Your task to perform on an android device: Open battery settings Image 0: 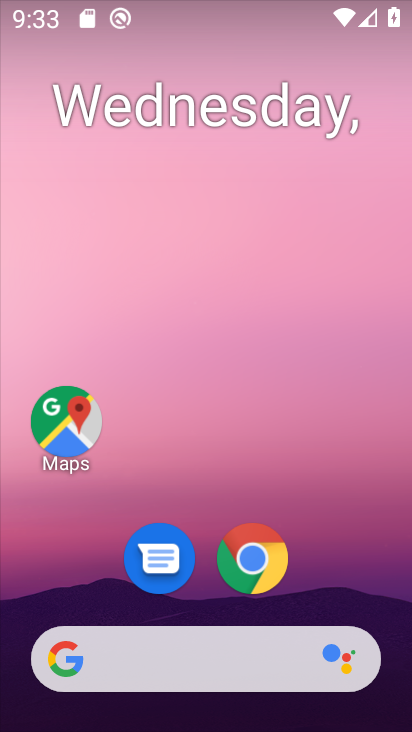
Step 0: drag from (363, 590) to (376, 111)
Your task to perform on an android device: Open battery settings Image 1: 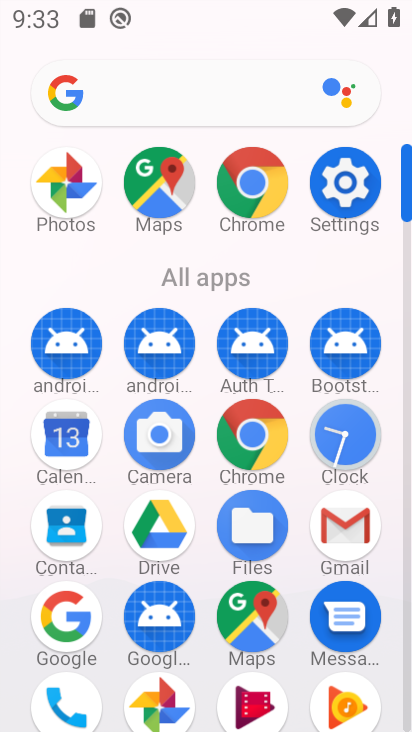
Step 1: click (353, 194)
Your task to perform on an android device: Open battery settings Image 2: 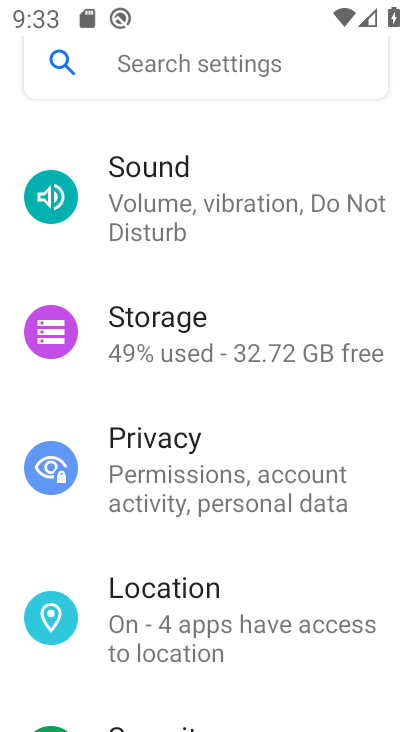
Step 2: drag from (371, 423) to (386, 311)
Your task to perform on an android device: Open battery settings Image 3: 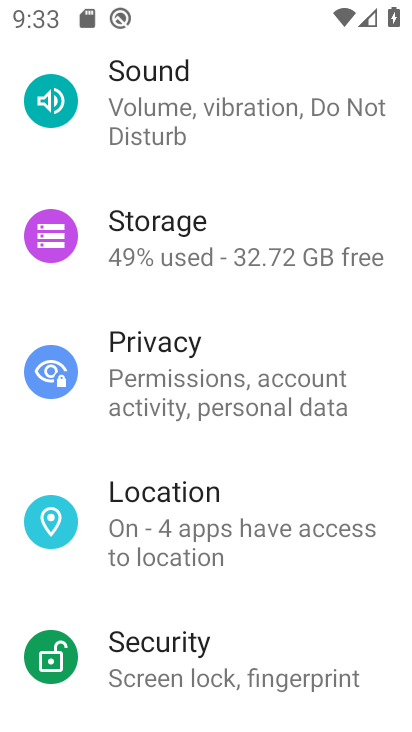
Step 3: drag from (365, 453) to (377, 364)
Your task to perform on an android device: Open battery settings Image 4: 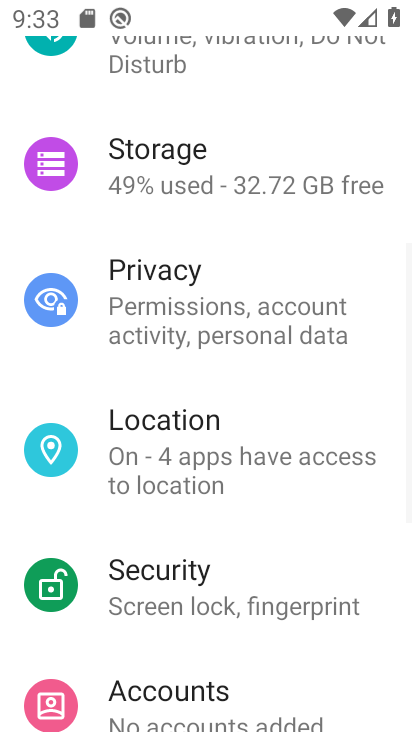
Step 4: drag from (347, 505) to (357, 391)
Your task to perform on an android device: Open battery settings Image 5: 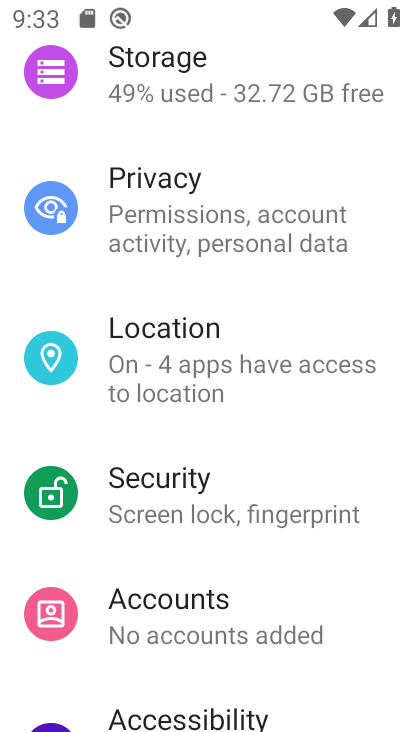
Step 5: drag from (352, 541) to (370, 430)
Your task to perform on an android device: Open battery settings Image 6: 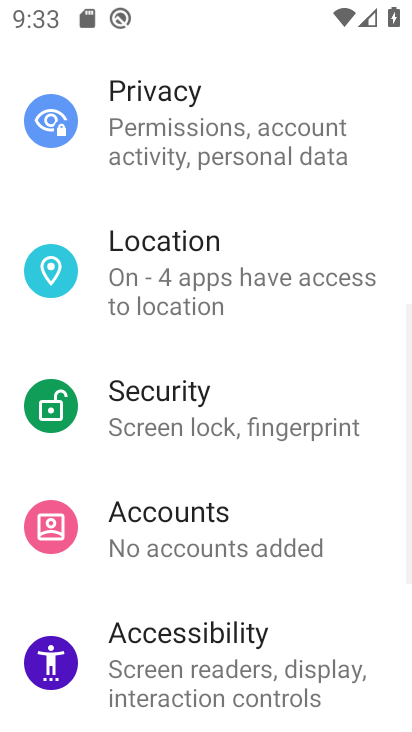
Step 6: drag from (360, 518) to (361, 415)
Your task to perform on an android device: Open battery settings Image 7: 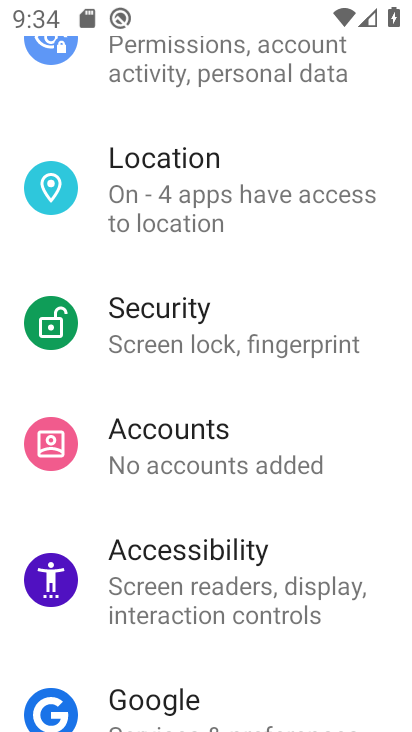
Step 7: drag from (361, 497) to (362, 409)
Your task to perform on an android device: Open battery settings Image 8: 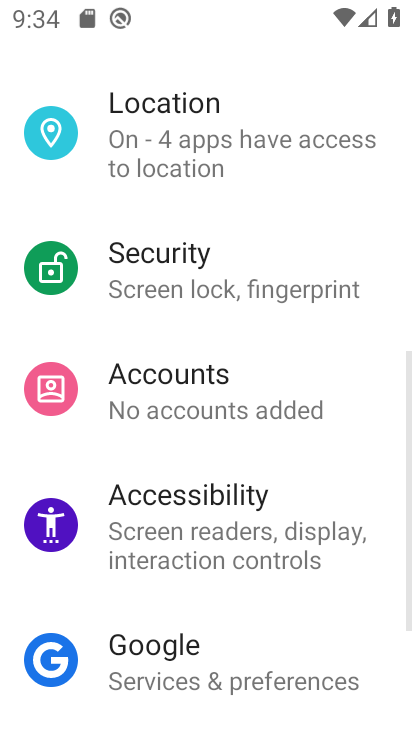
Step 8: drag from (354, 495) to (361, 409)
Your task to perform on an android device: Open battery settings Image 9: 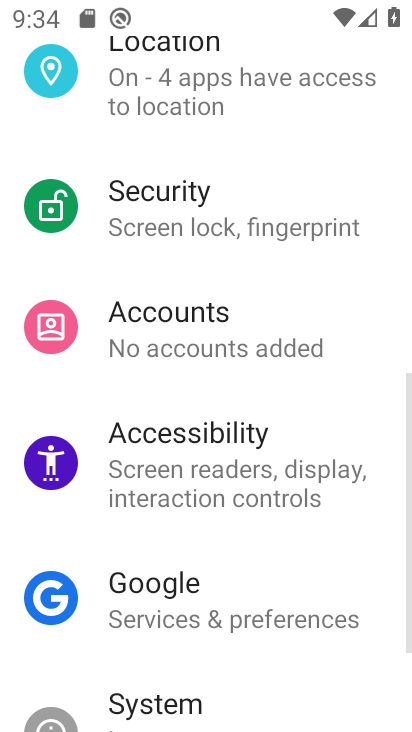
Step 9: drag from (357, 535) to (368, 273)
Your task to perform on an android device: Open battery settings Image 10: 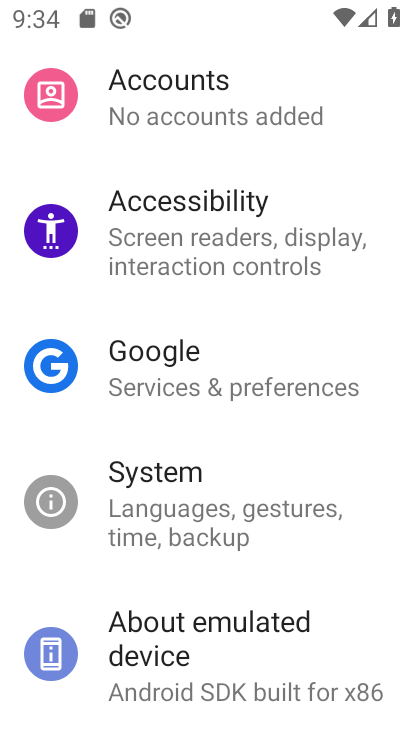
Step 10: drag from (351, 300) to (349, 390)
Your task to perform on an android device: Open battery settings Image 11: 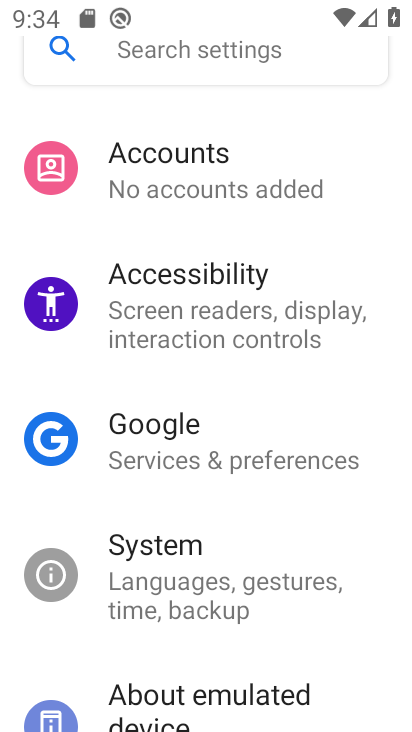
Step 11: drag from (377, 241) to (379, 349)
Your task to perform on an android device: Open battery settings Image 12: 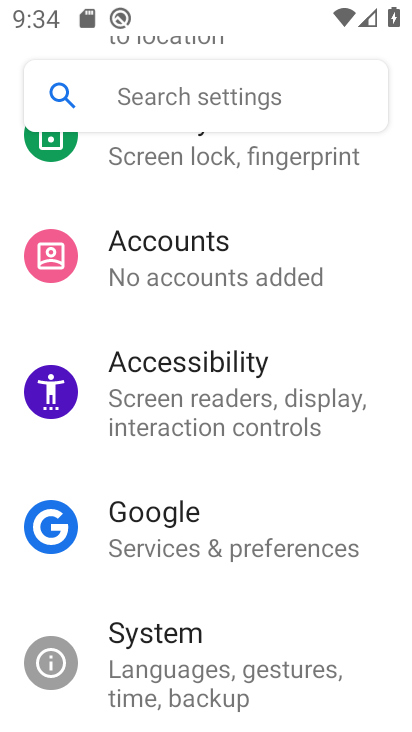
Step 12: drag from (375, 222) to (375, 341)
Your task to perform on an android device: Open battery settings Image 13: 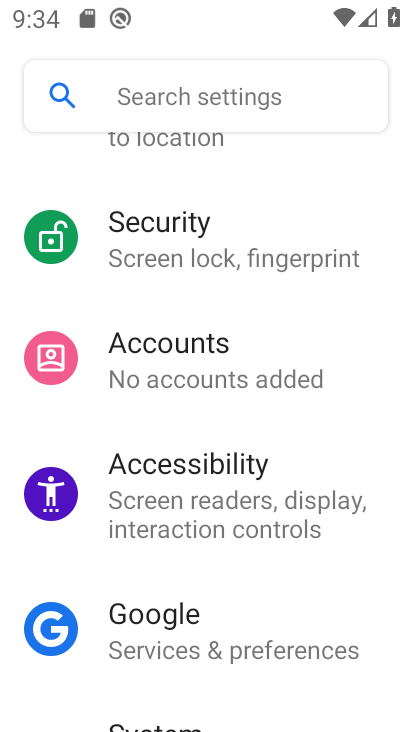
Step 13: drag from (377, 231) to (380, 349)
Your task to perform on an android device: Open battery settings Image 14: 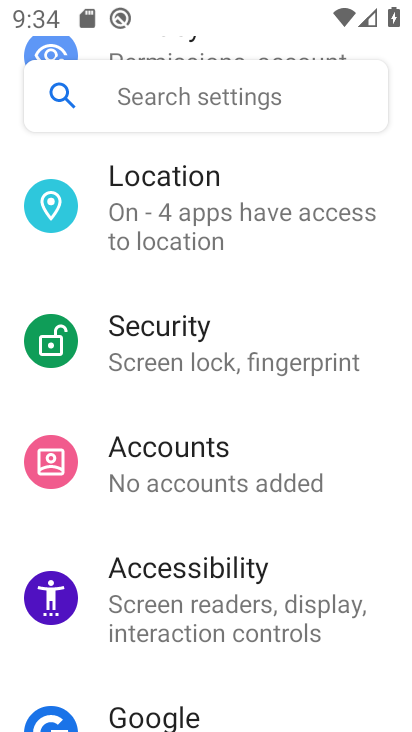
Step 14: drag from (376, 179) to (370, 407)
Your task to perform on an android device: Open battery settings Image 15: 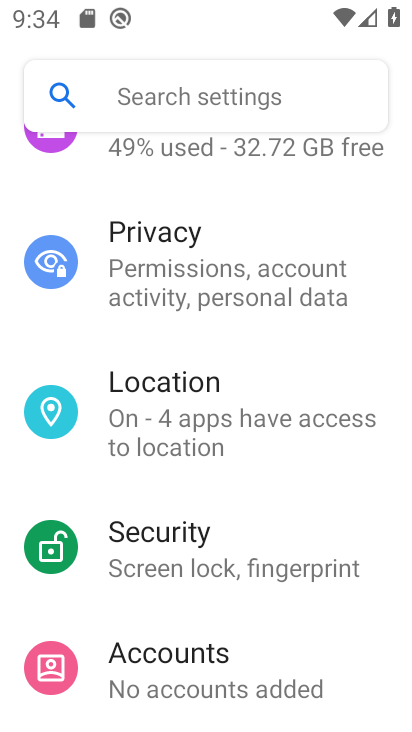
Step 15: drag from (352, 216) to (352, 428)
Your task to perform on an android device: Open battery settings Image 16: 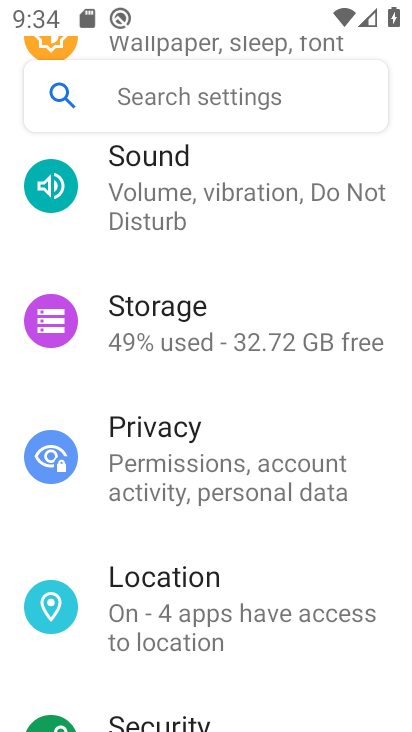
Step 16: drag from (372, 171) to (362, 379)
Your task to perform on an android device: Open battery settings Image 17: 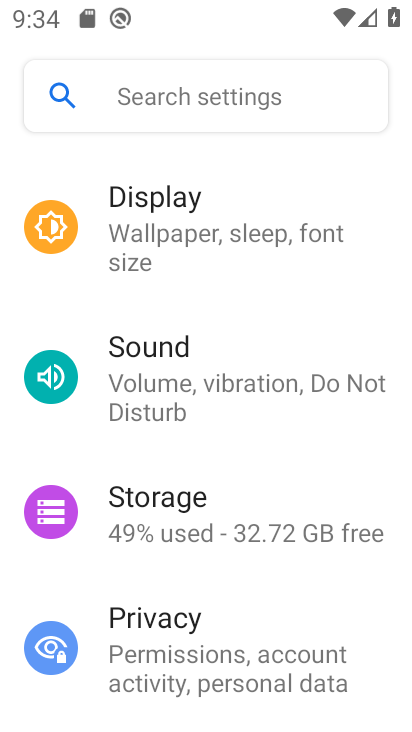
Step 17: drag from (380, 164) to (358, 362)
Your task to perform on an android device: Open battery settings Image 18: 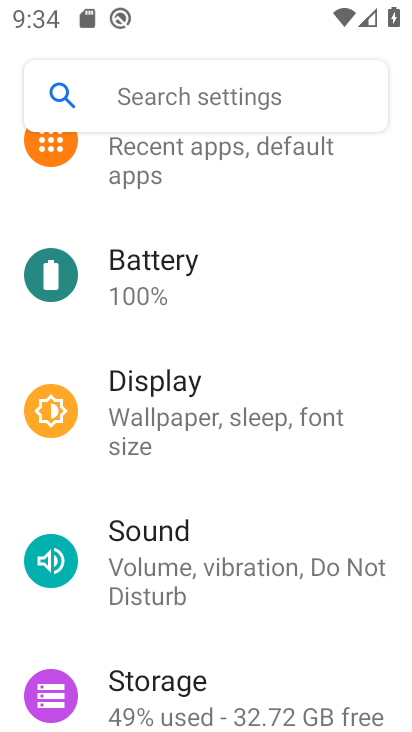
Step 18: click (246, 289)
Your task to perform on an android device: Open battery settings Image 19: 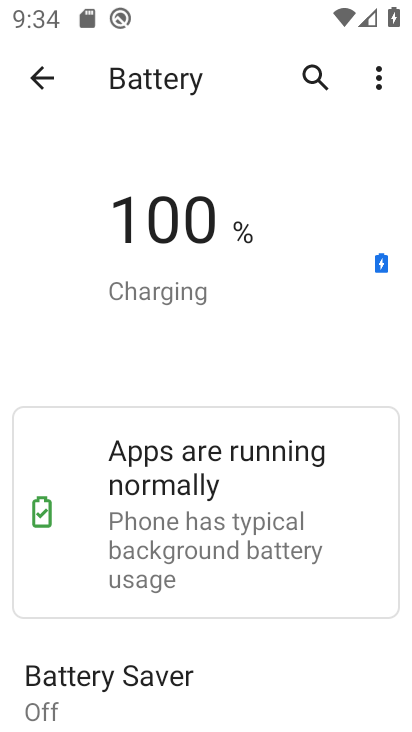
Step 19: task complete